Your task to perform on an android device: open a new tab in the chrome app Image 0: 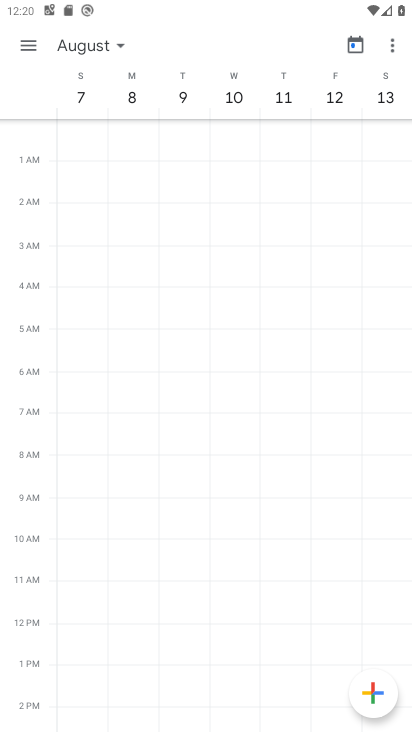
Step 0: press home button
Your task to perform on an android device: open a new tab in the chrome app Image 1: 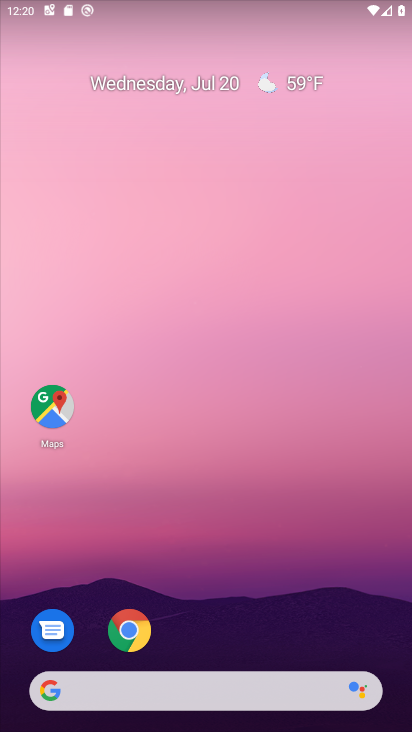
Step 1: click (129, 631)
Your task to perform on an android device: open a new tab in the chrome app Image 2: 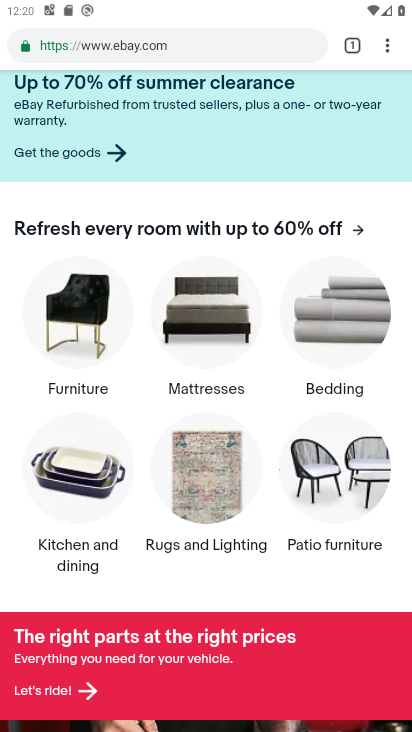
Step 2: click (385, 48)
Your task to perform on an android device: open a new tab in the chrome app Image 3: 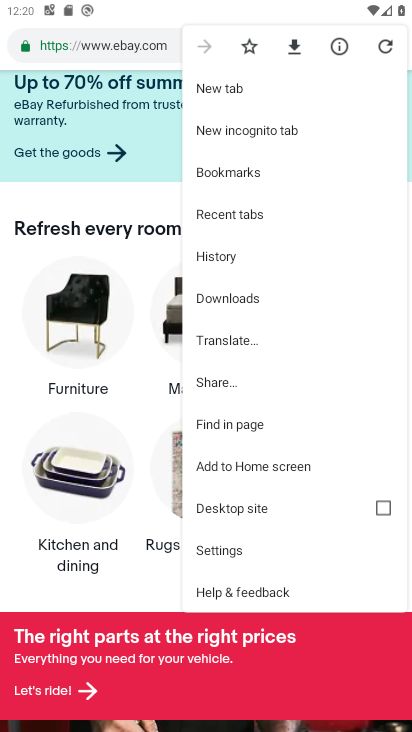
Step 3: click (215, 84)
Your task to perform on an android device: open a new tab in the chrome app Image 4: 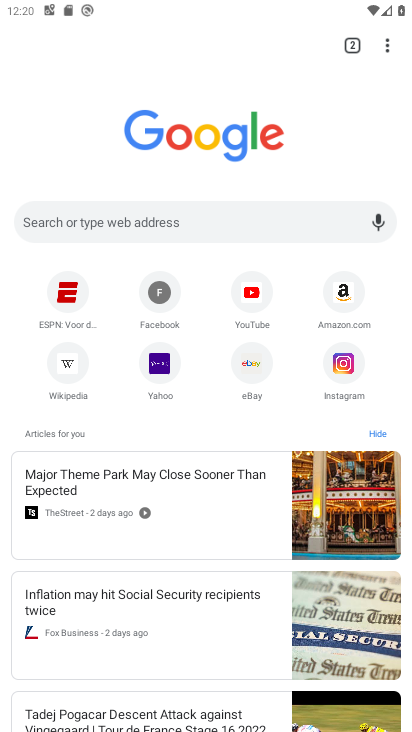
Step 4: task complete